Your task to perform on an android device: toggle sleep mode Image 0: 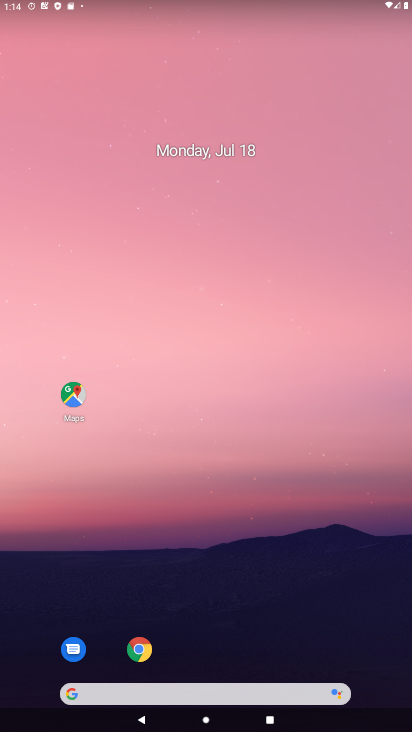
Step 0: drag from (251, 660) to (226, 85)
Your task to perform on an android device: toggle sleep mode Image 1: 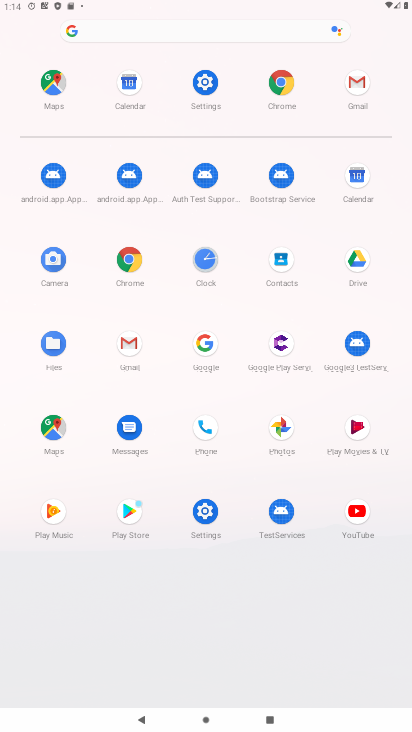
Step 1: click (207, 79)
Your task to perform on an android device: toggle sleep mode Image 2: 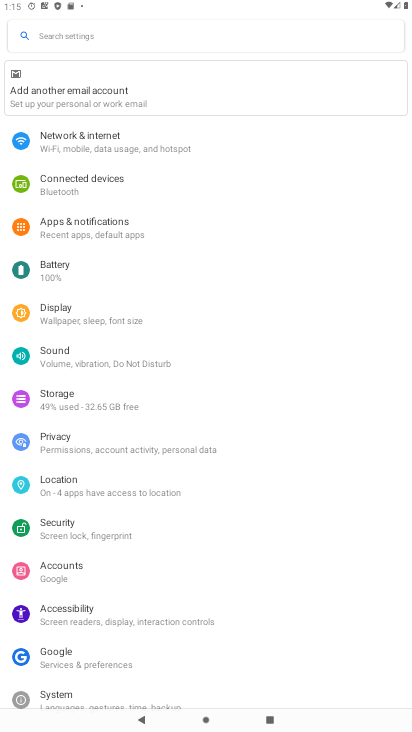
Step 2: click (71, 329)
Your task to perform on an android device: toggle sleep mode Image 3: 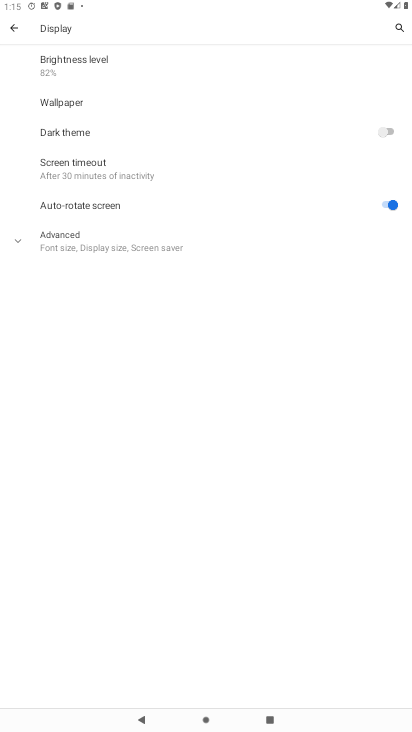
Step 3: task complete